Your task to perform on an android device: Search for the best rated tool bag on Lowe's. Image 0: 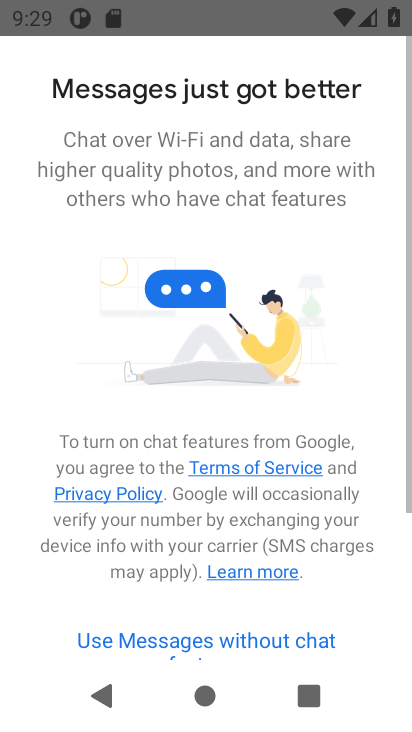
Step 0: task complete